Your task to perform on an android device: Set the phone to "Do not disturb". Image 0: 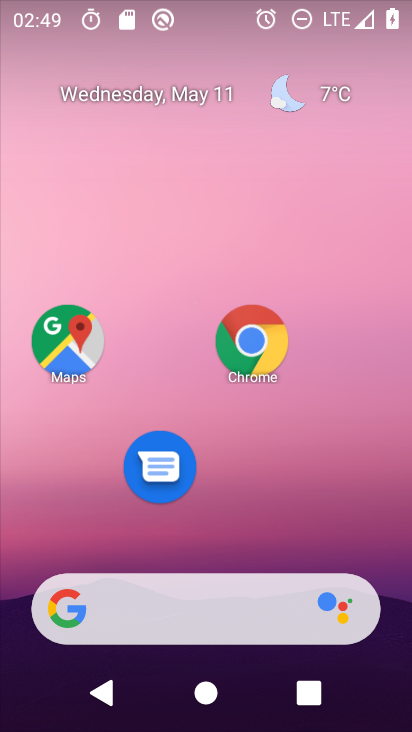
Step 0: press home button
Your task to perform on an android device: Set the phone to "Do not disturb". Image 1: 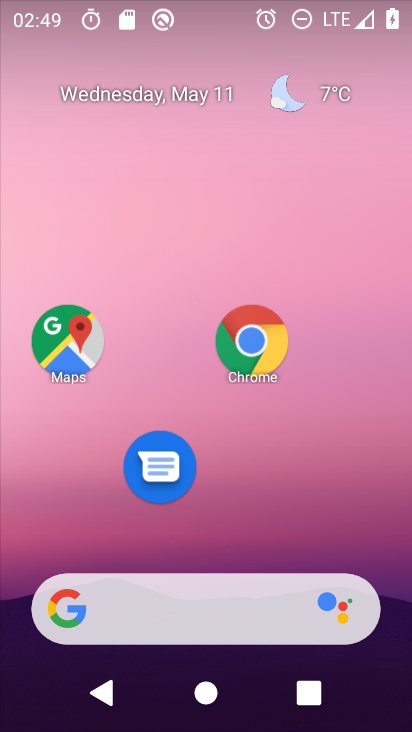
Step 1: drag from (160, 607) to (298, 78)
Your task to perform on an android device: Set the phone to "Do not disturb". Image 2: 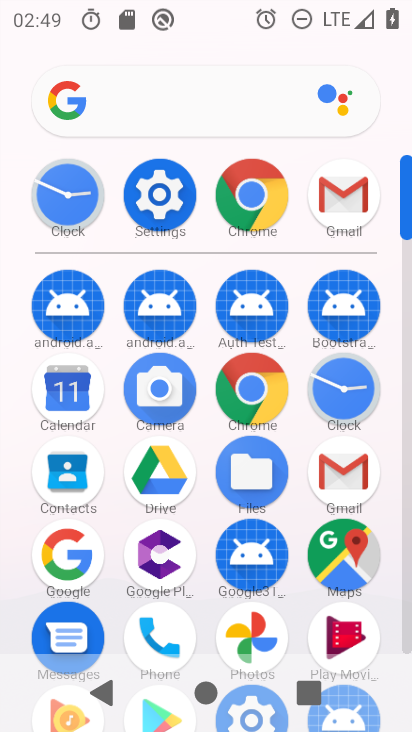
Step 2: click (171, 195)
Your task to perform on an android device: Set the phone to "Do not disturb". Image 3: 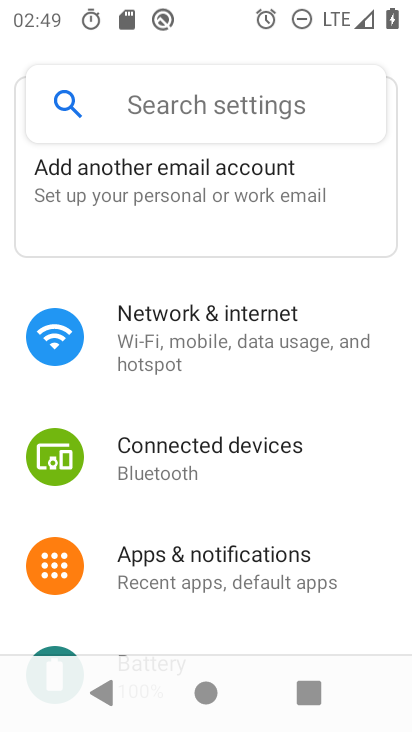
Step 3: drag from (210, 540) to (374, 181)
Your task to perform on an android device: Set the phone to "Do not disturb". Image 4: 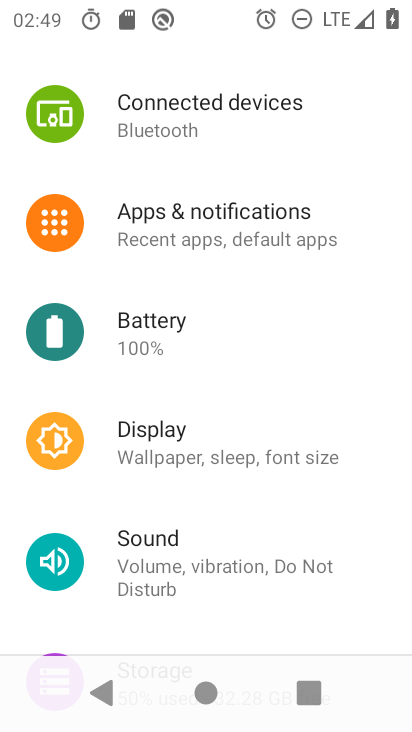
Step 4: click (202, 556)
Your task to perform on an android device: Set the phone to "Do not disturb". Image 5: 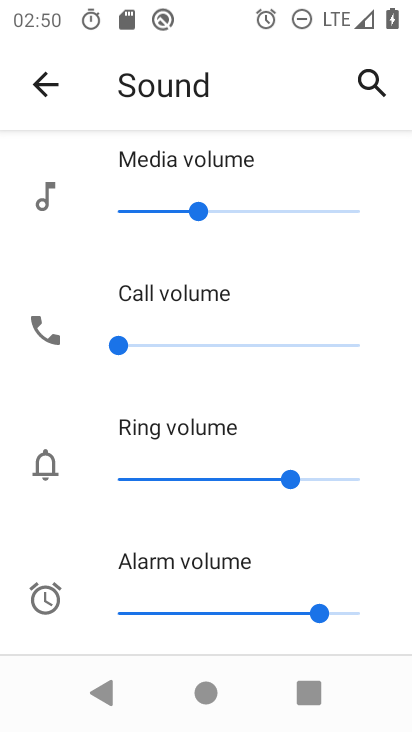
Step 5: drag from (191, 645) to (331, 173)
Your task to perform on an android device: Set the phone to "Do not disturb". Image 6: 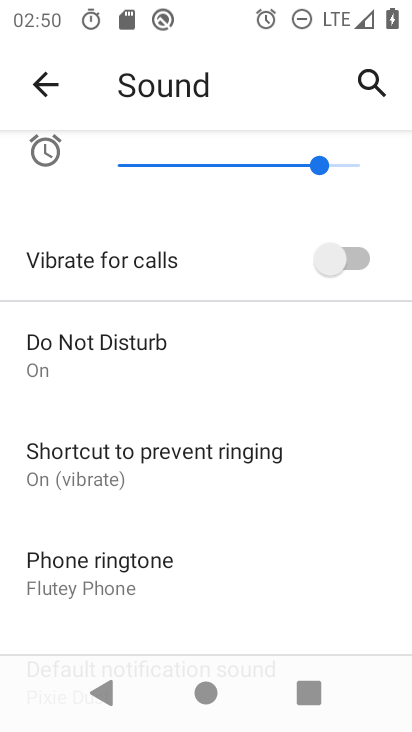
Step 6: click (69, 350)
Your task to perform on an android device: Set the phone to "Do not disturb". Image 7: 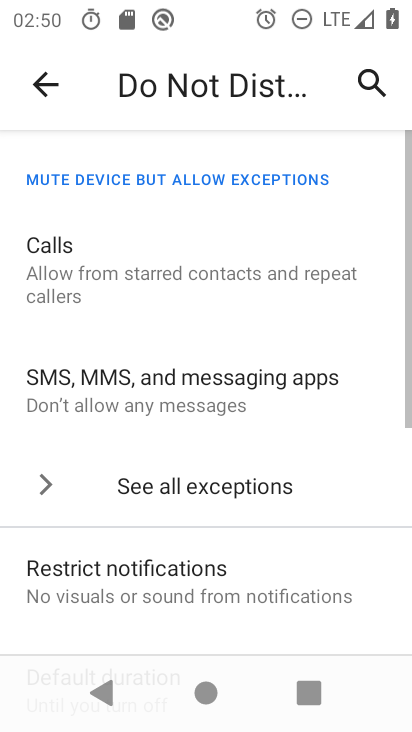
Step 7: task complete